Your task to perform on an android device: open a new tab in the chrome app Image 0: 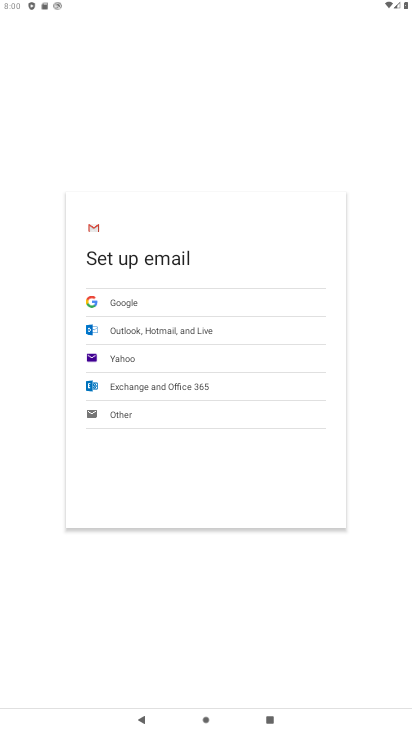
Step 0: press home button
Your task to perform on an android device: open a new tab in the chrome app Image 1: 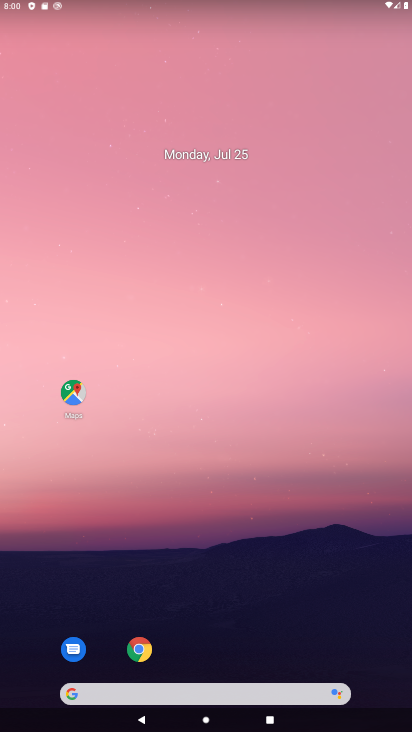
Step 1: click (136, 656)
Your task to perform on an android device: open a new tab in the chrome app Image 2: 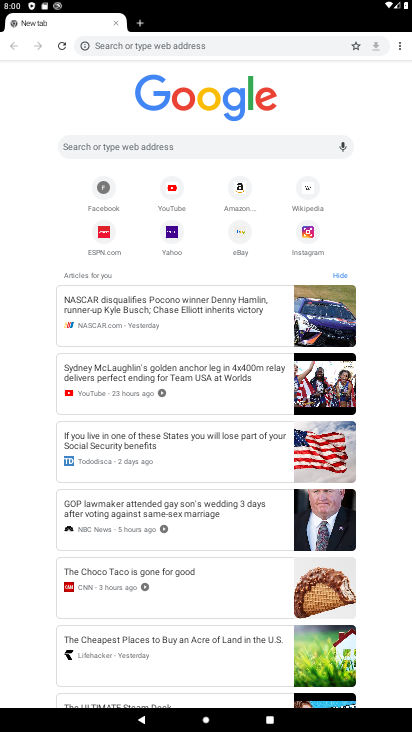
Step 2: click (139, 26)
Your task to perform on an android device: open a new tab in the chrome app Image 3: 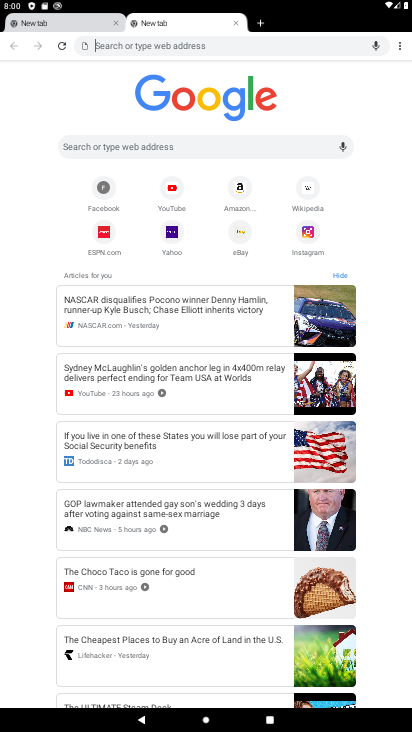
Step 3: task complete